Your task to perform on an android device: open app "Google Photos" Image 0: 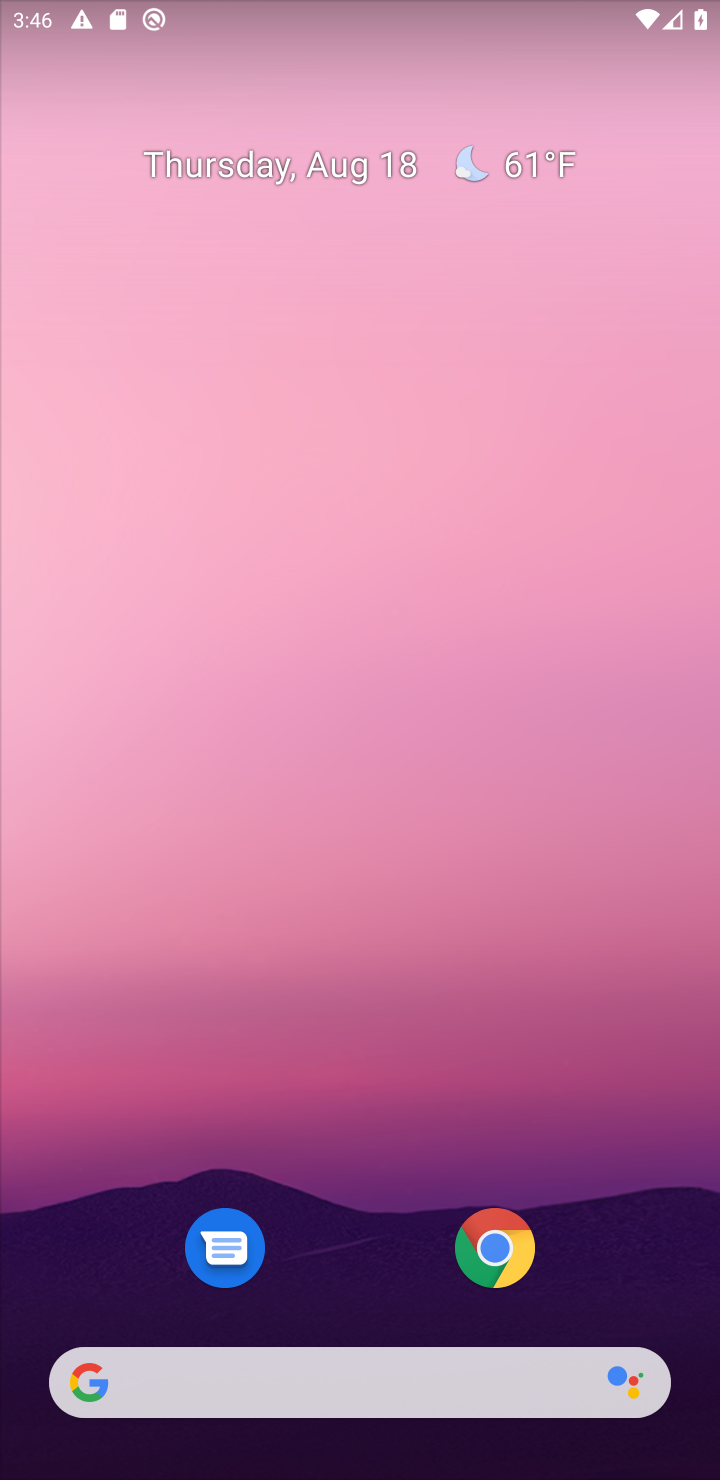
Step 0: drag from (358, 1148) to (413, 217)
Your task to perform on an android device: open app "Google Photos" Image 1: 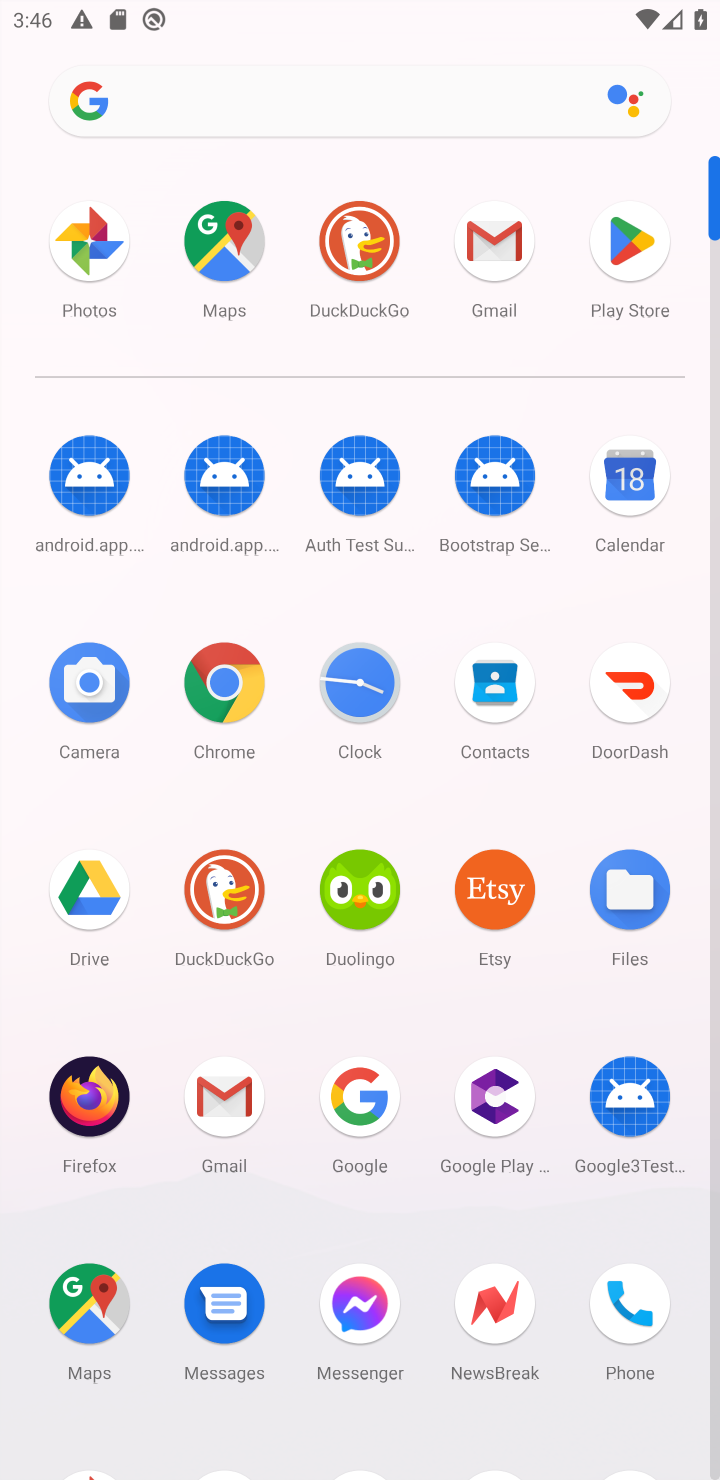
Step 1: click (629, 250)
Your task to perform on an android device: open app "Google Photos" Image 2: 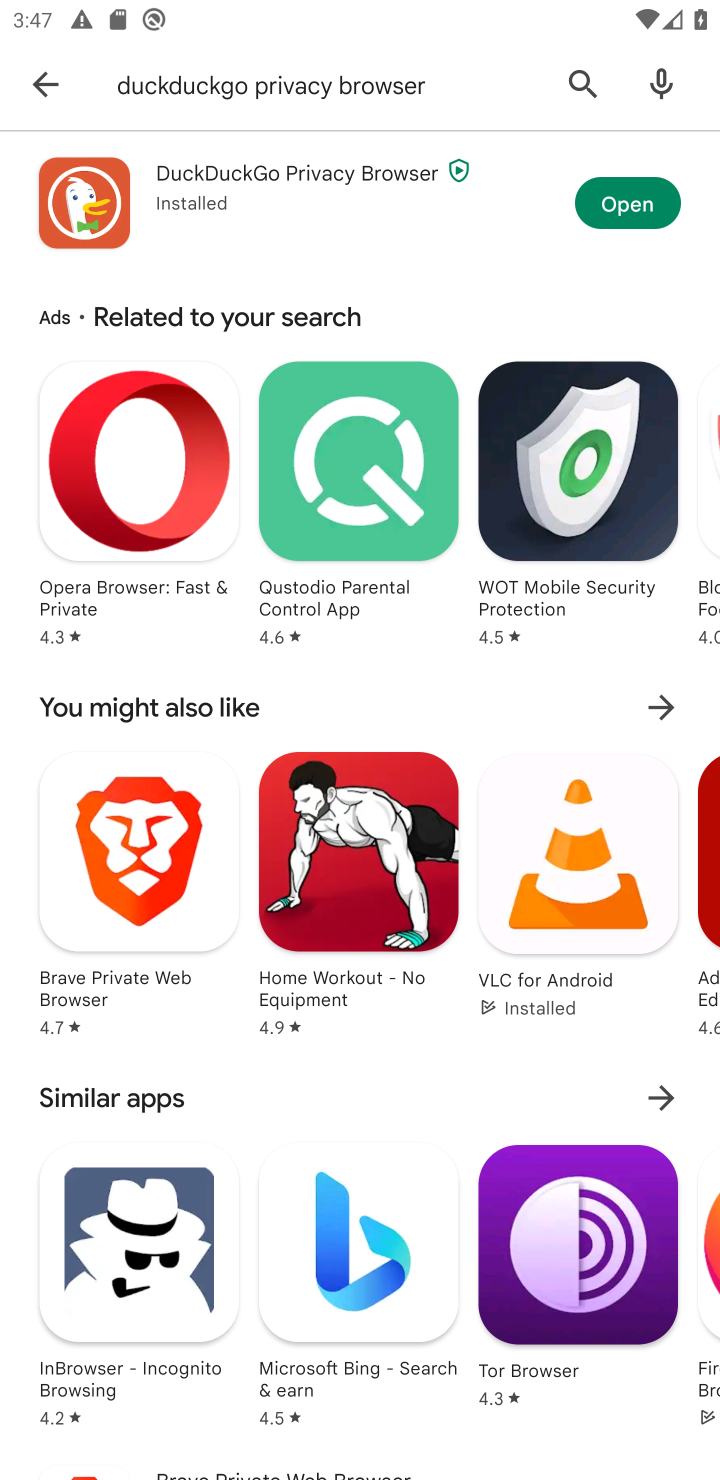
Step 2: click (576, 78)
Your task to perform on an android device: open app "Google Photos" Image 3: 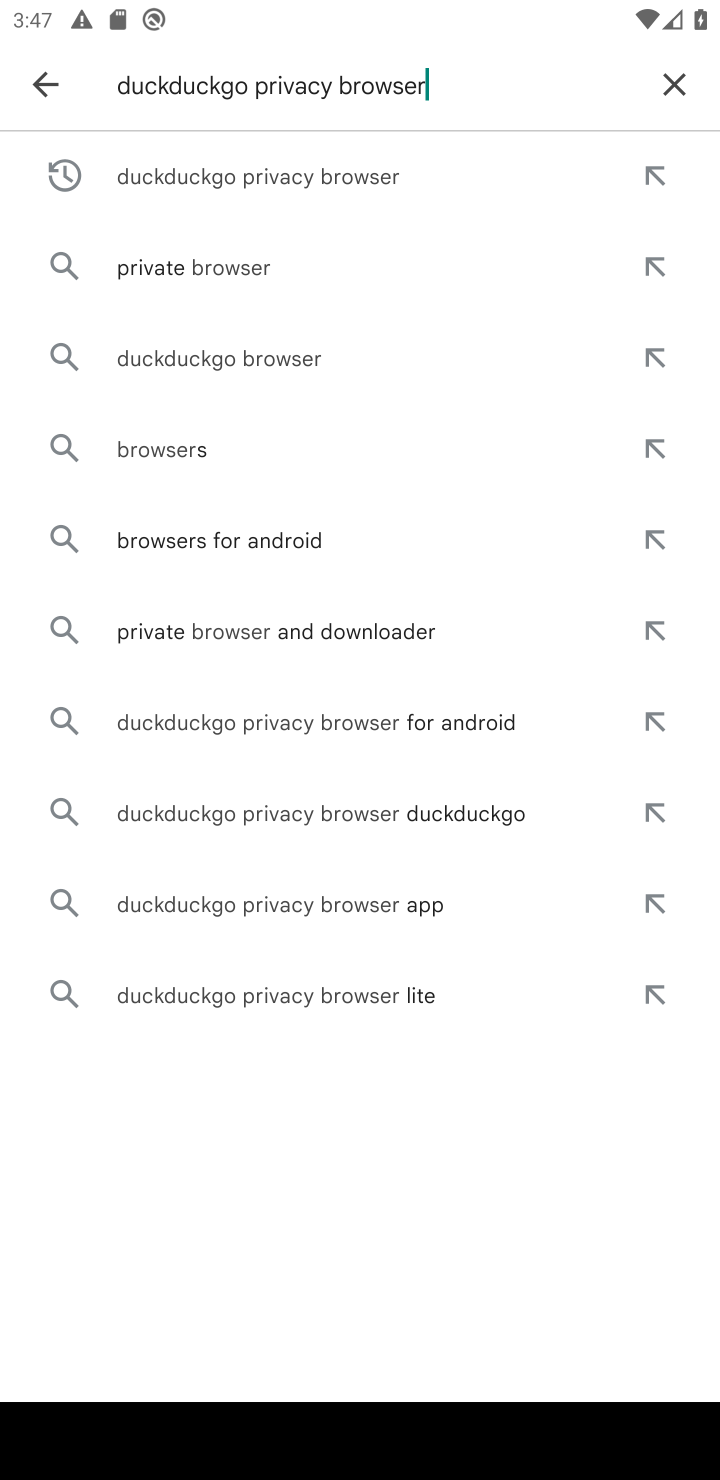
Step 3: click (678, 70)
Your task to perform on an android device: open app "Google Photos" Image 4: 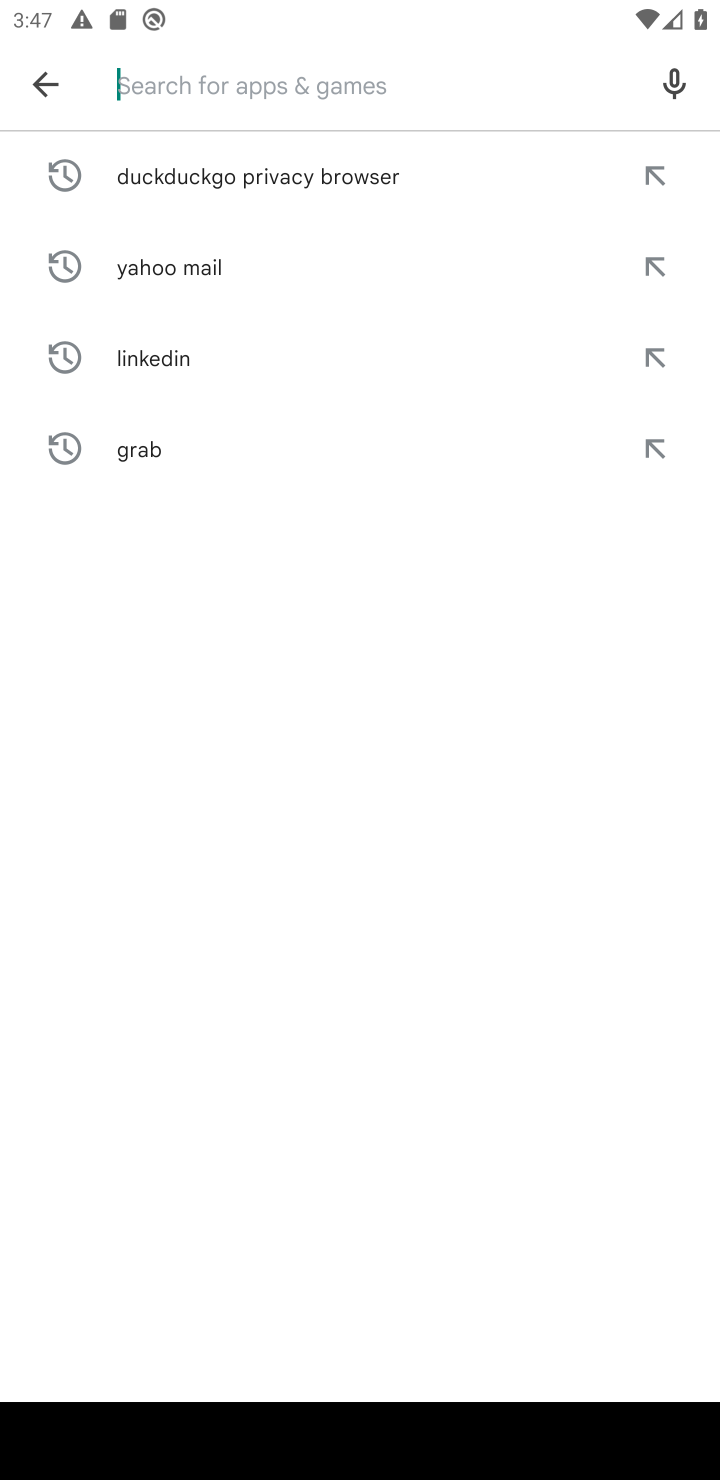
Step 4: type "Google Photos"
Your task to perform on an android device: open app "Google Photos" Image 5: 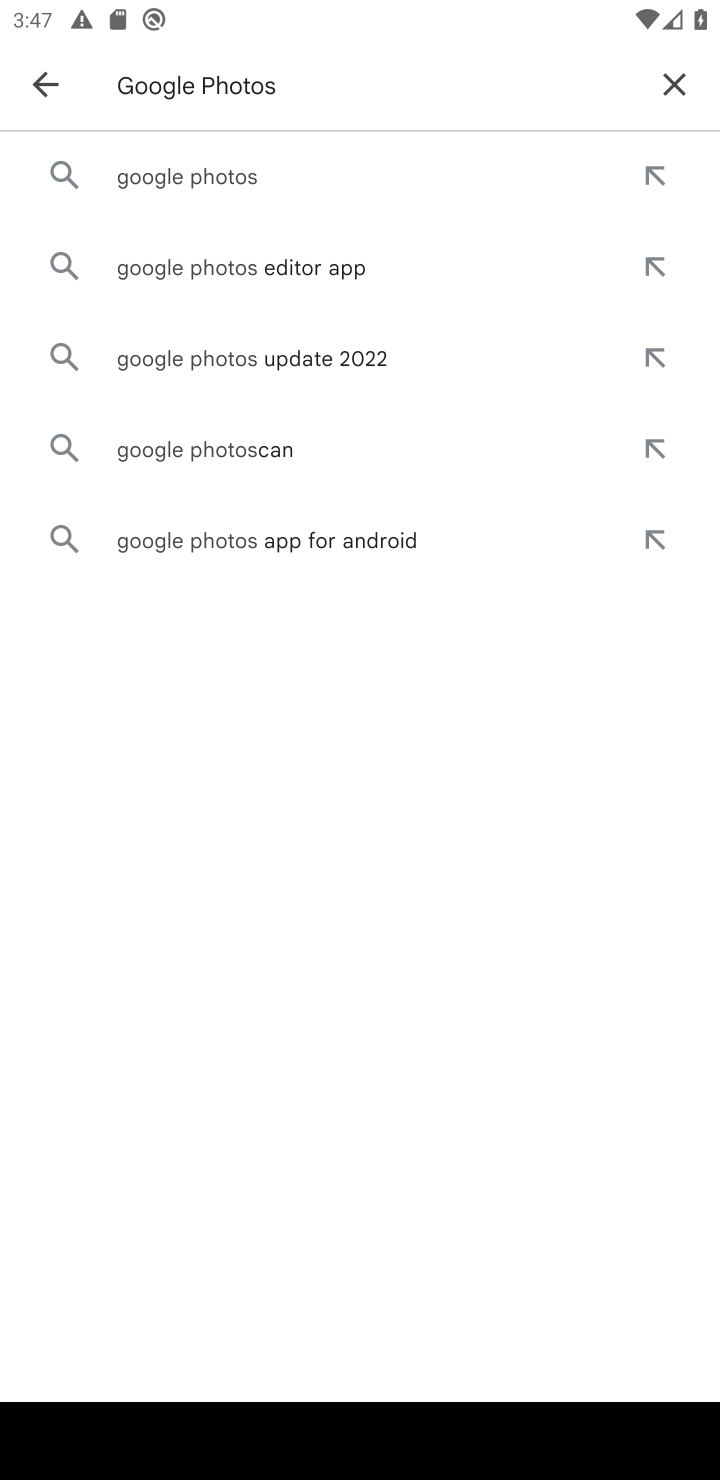
Step 5: click (211, 177)
Your task to perform on an android device: open app "Google Photos" Image 6: 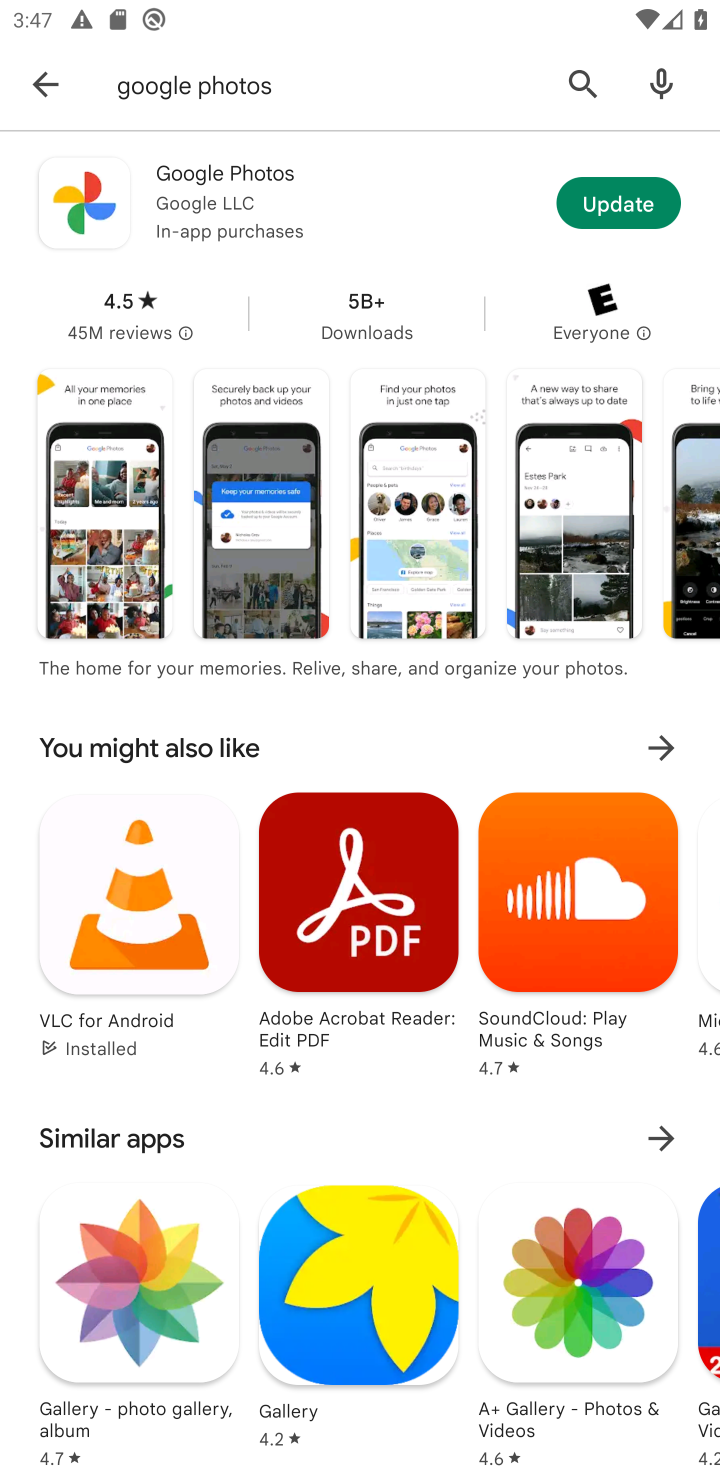
Step 6: click (177, 195)
Your task to perform on an android device: open app "Google Photos" Image 7: 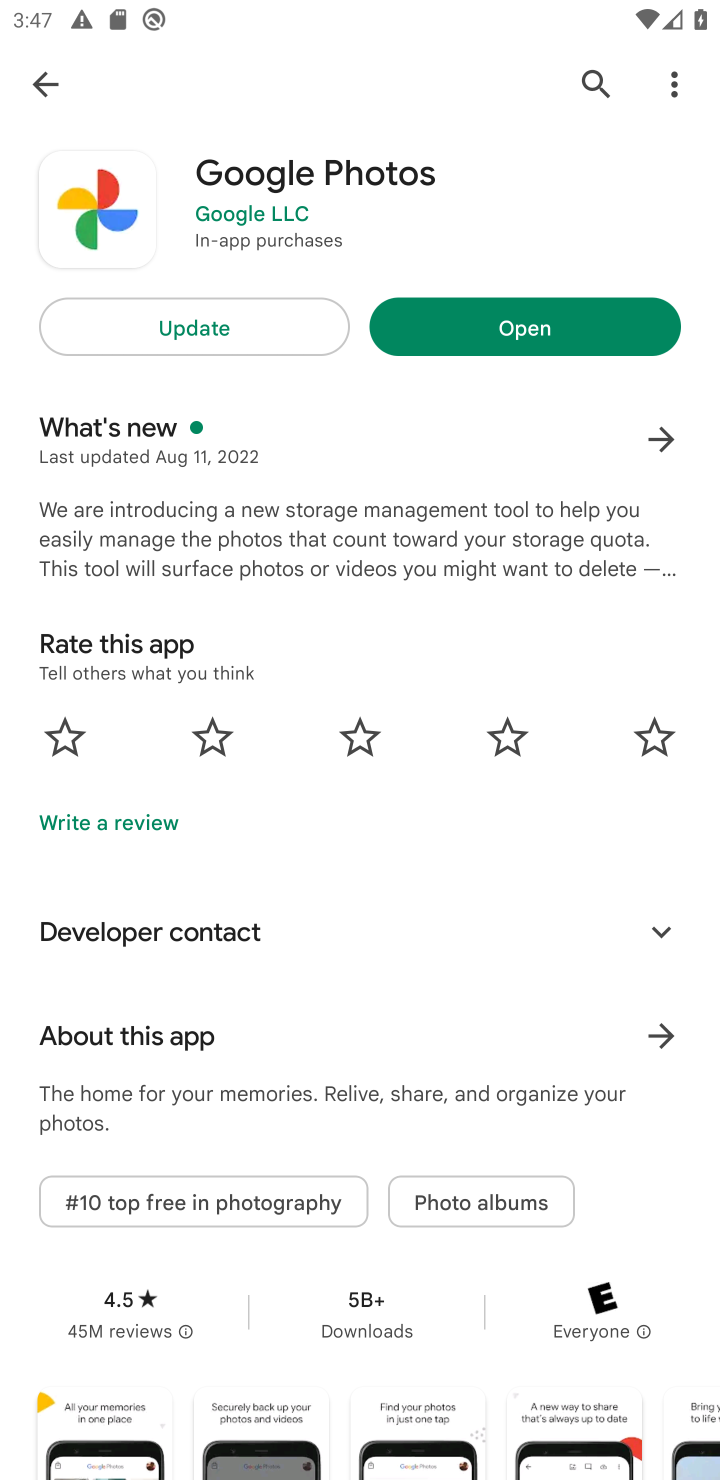
Step 7: click (472, 317)
Your task to perform on an android device: open app "Google Photos" Image 8: 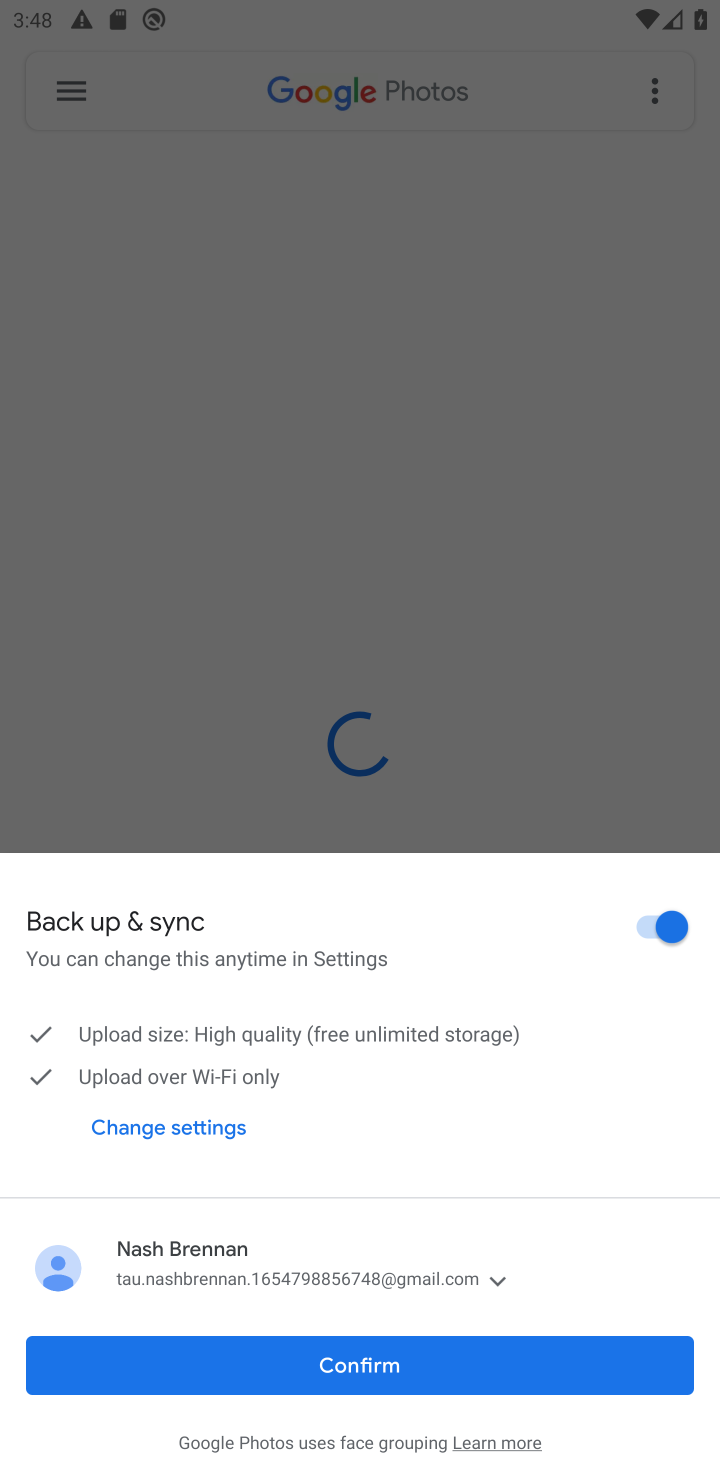
Step 8: click (319, 1368)
Your task to perform on an android device: open app "Google Photos" Image 9: 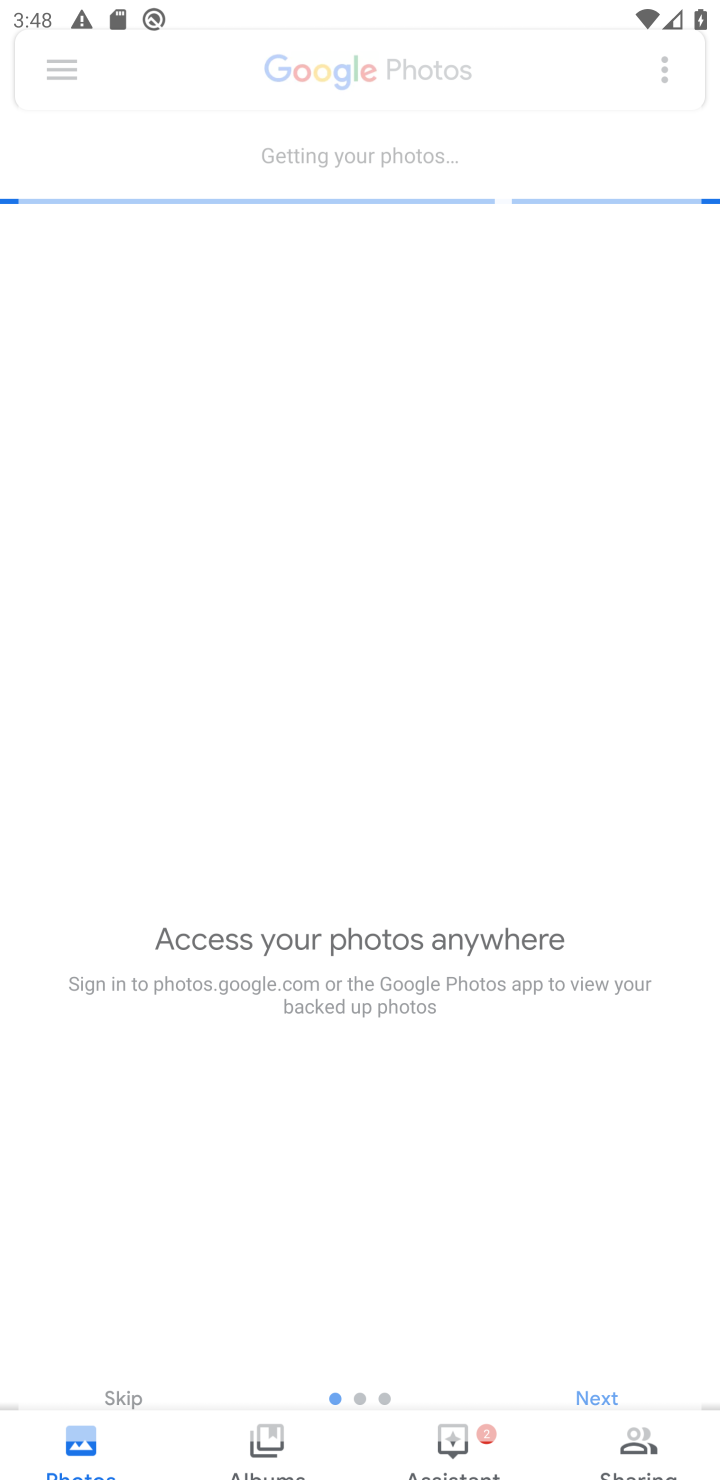
Step 9: task complete